Your task to perform on an android device: toggle priority inbox in the gmail app Image 0: 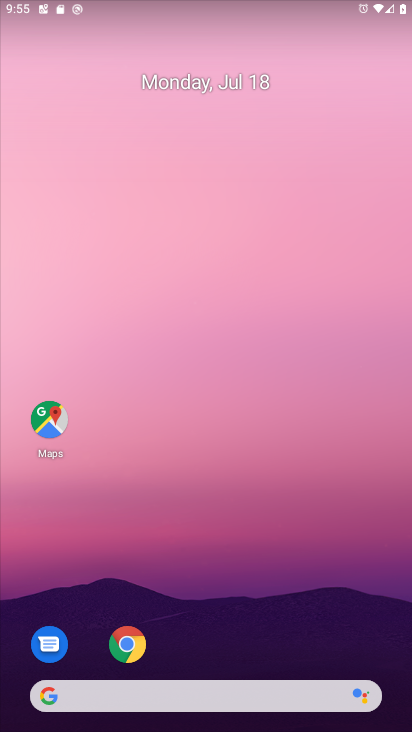
Step 0: drag from (191, 657) to (206, 113)
Your task to perform on an android device: toggle priority inbox in the gmail app Image 1: 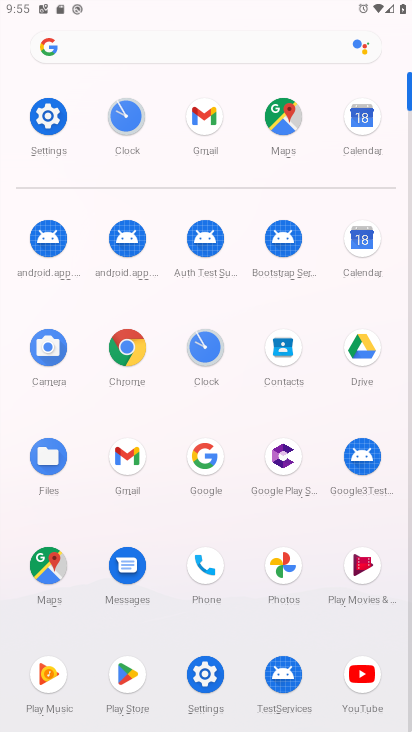
Step 1: click (123, 466)
Your task to perform on an android device: toggle priority inbox in the gmail app Image 2: 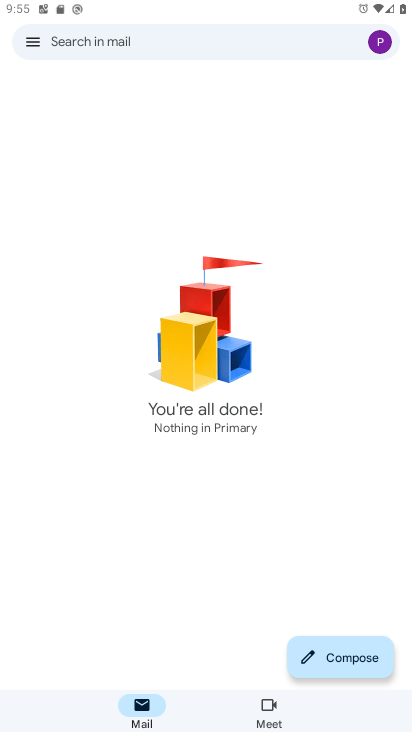
Step 2: task complete